Your task to perform on an android device: Open Youtube and go to the subscriptions tab Image 0: 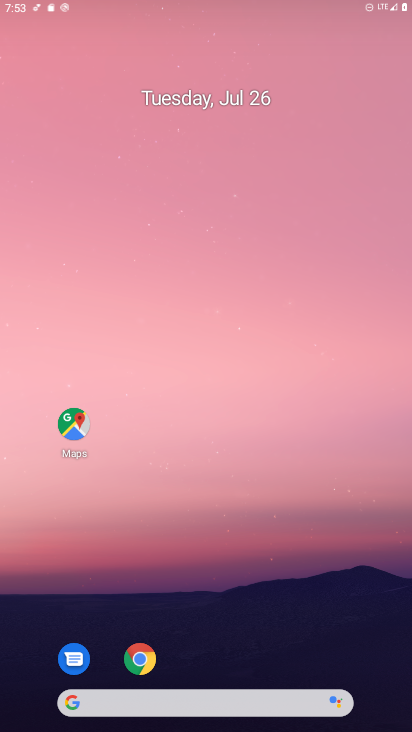
Step 0: drag from (187, 608) to (187, 137)
Your task to perform on an android device: Open Youtube and go to the subscriptions tab Image 1: 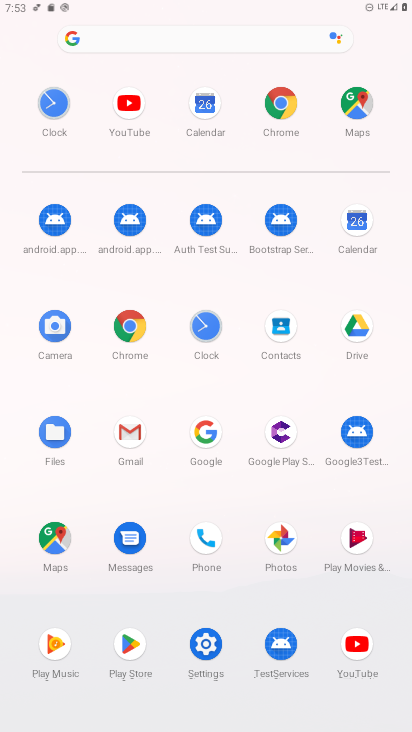
Step 1: click (354, 639)
Your task to perform on an android device: Open Youtube and go to the subscriptions tab Image 2: 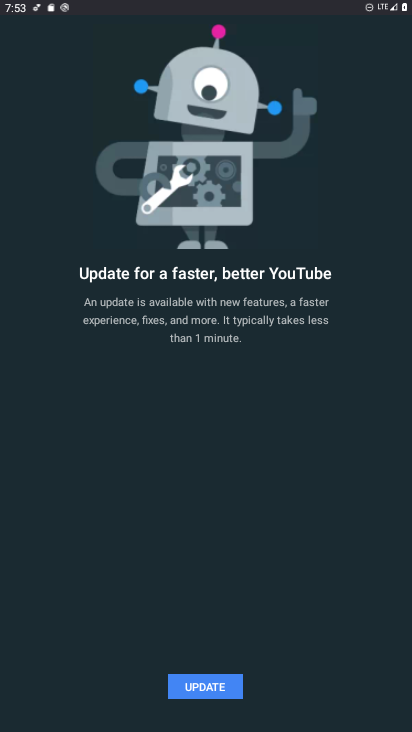
Step 2: drag from (239, 590) to (228, 446)
Your task to perform on an android device: Open Youtube and go to the subscriptions tab Image 3: 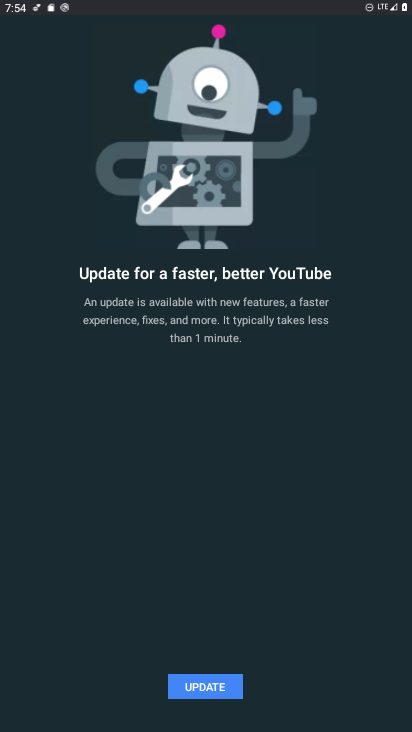
Step 3: click (212, 358)
Your task to perform on an android device: Open Youtube and go to the subscriptions tab Image 4: 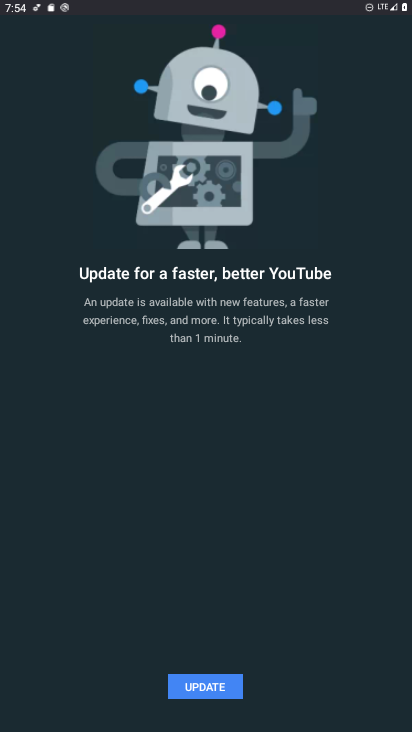
Step 4: task complete